Your task to perform on an android device: turn on location history Image 0: 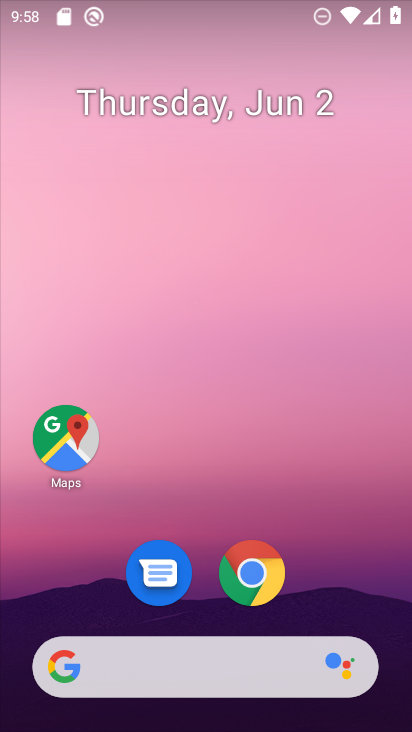
Step 0: drag from (333, 555) to (274, 202)
Your task to perform on an android device: turn on location history Image 1: 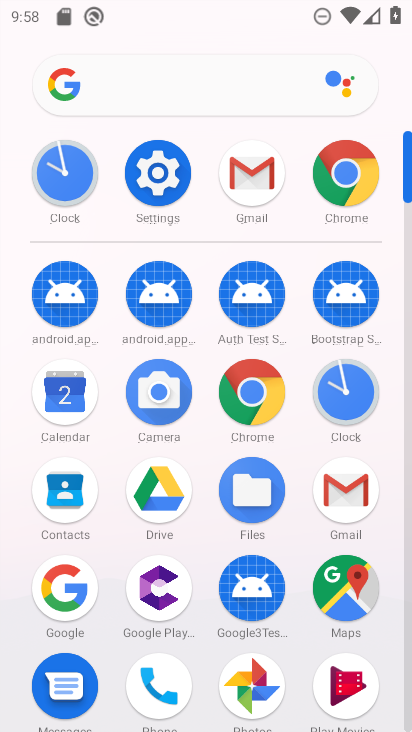
Step 1: click (158, 159)
Your task to perform on an android device: turn on location history Image 2: 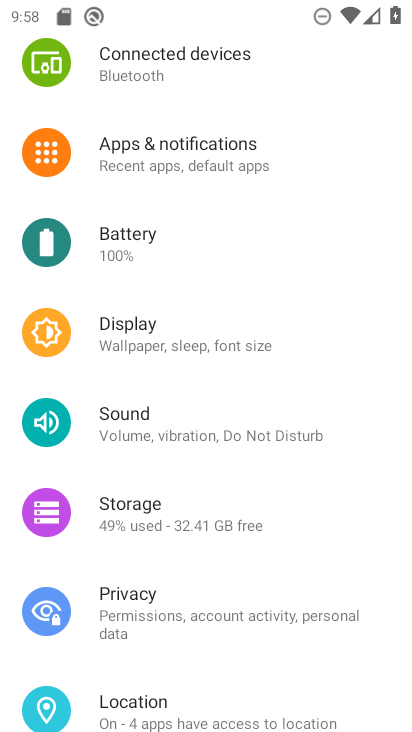
Step 2: drag from (180, 196) to (195, 565)
Your task to perform on an android device: turn on location history Image 3: 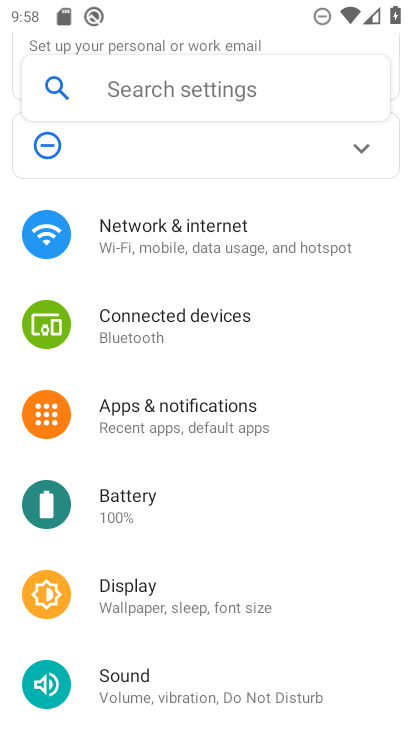
Step 3: drag from (194, 521) to (222, 166)
Your task to perform on an android device: turn on location history Image 4: 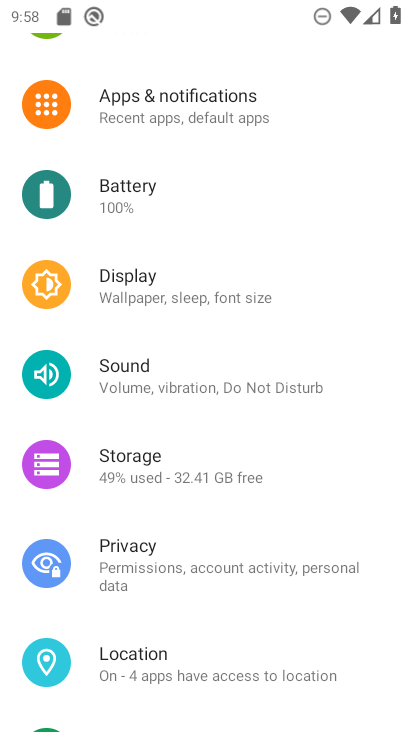
Step 4: click (129, 670)
Your task to perform on an android device: turn on location history Image 5: 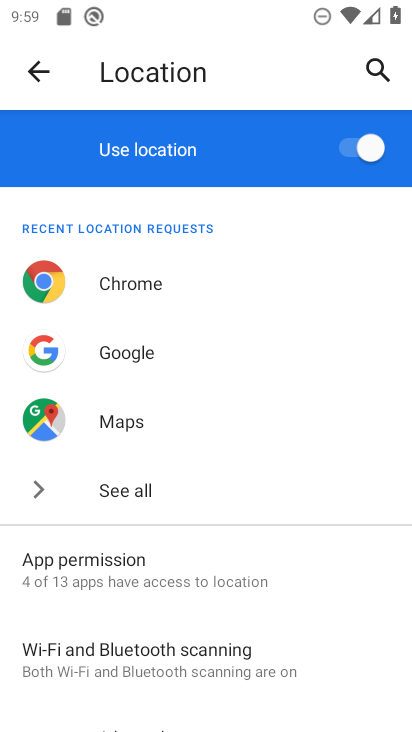
Step 5: drag from (253, 582) to (239, 201)
Your task to perform on an android device: turn on location history Image 6: 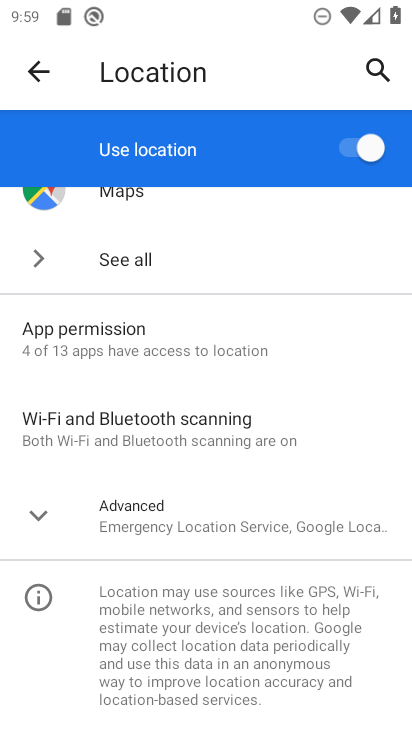
Step 6: click (139, 511)
Your task to perform on an android device: turn on location history Image 7: 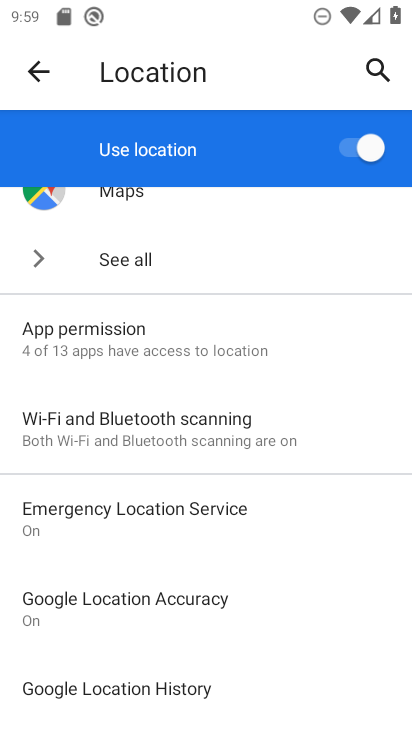
Step 7: click (183, 688)
Your task to perform on an android device: turn on location history Image 8: 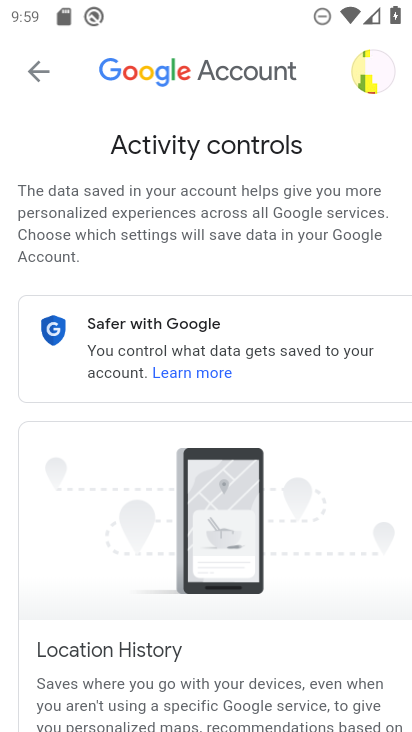
Step 8: drag from (199, 571) to (254, 163)
Your task to perform on an android device: turn on location history Image 9: 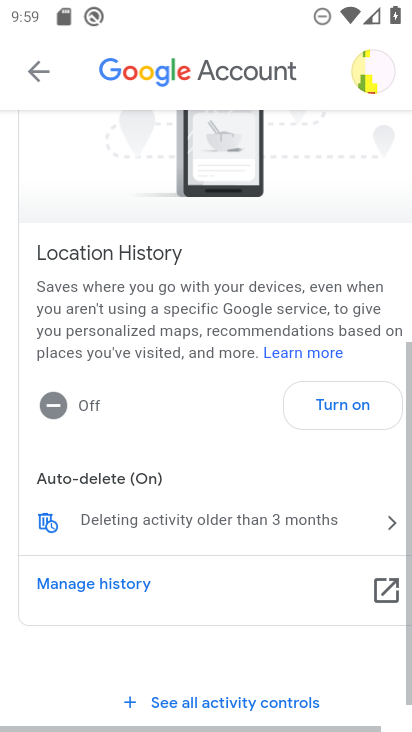
Step 9: click (254, 163)
Your task to perform on an android device: turn on location history Image 10: 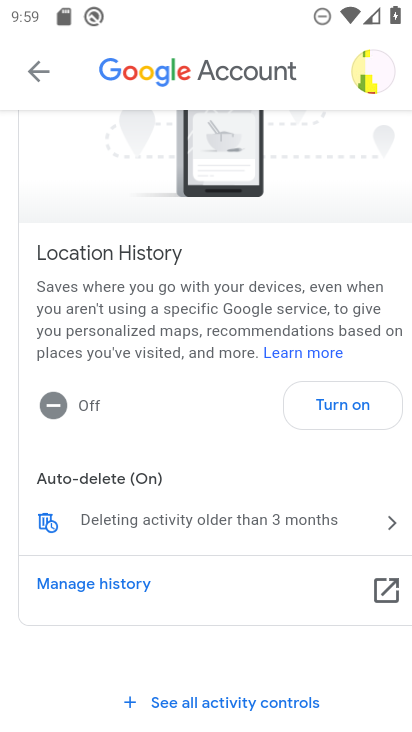
Step 10: click (328, 404)
Your task to perform on an android device: turn on location history Image 11: 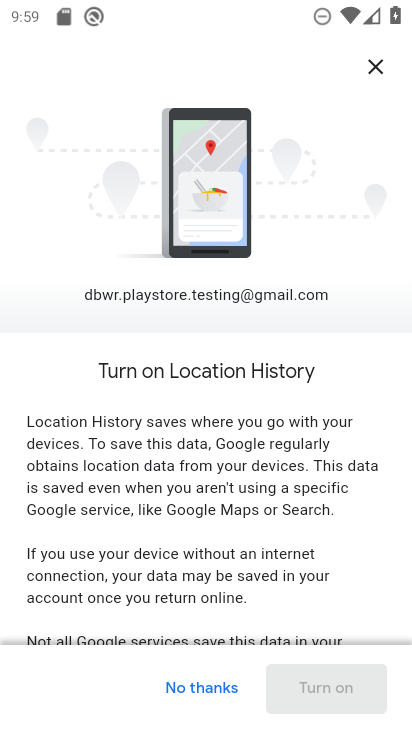
Step 11: drag from (223, 571) to (237, 230)
Your task to perform on an android device: turn on location history Image 12: 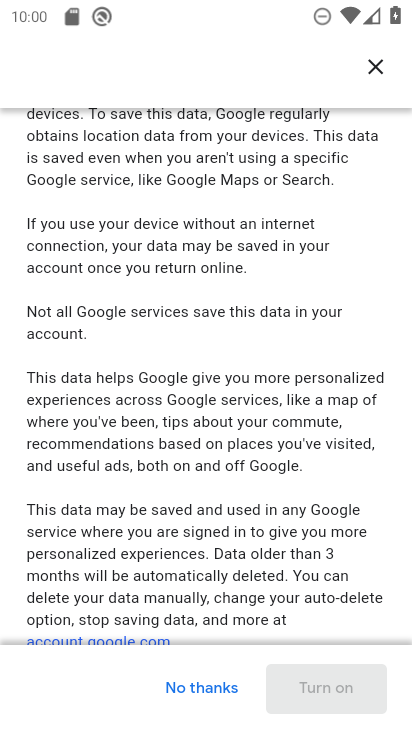
Step 12: drag from (269, 575) to (255, 221)
Your task to perform on an android device: turn on location history Image 13: 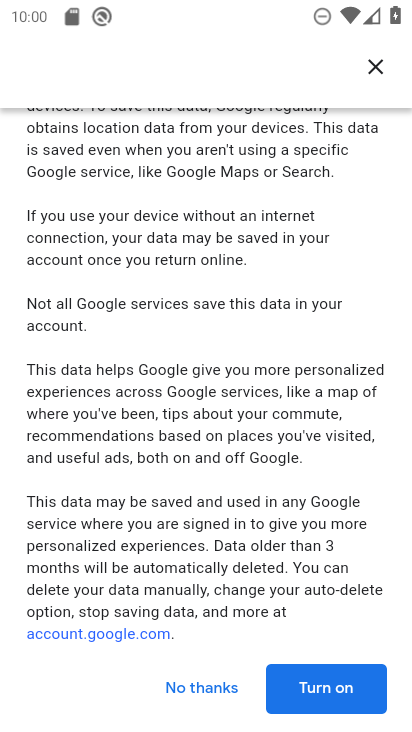
Step 13: click (325, 670)
Your task to perform on an android device: turn on location history Image 14: 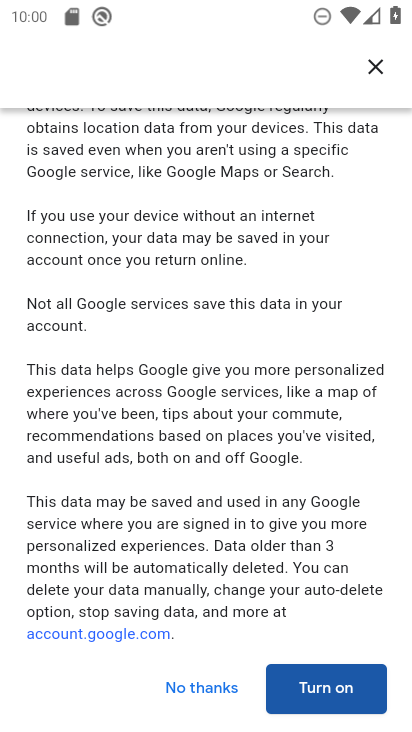
Step 14: click (330, 690)
Your task to perform on an android device: turn on location history Image 15: 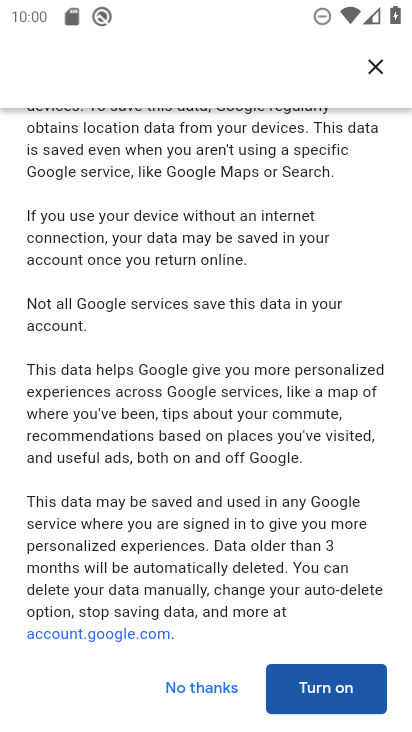
Step 15: click (330, 690)
Your task to perform on an android device: turn on location history Image 16: 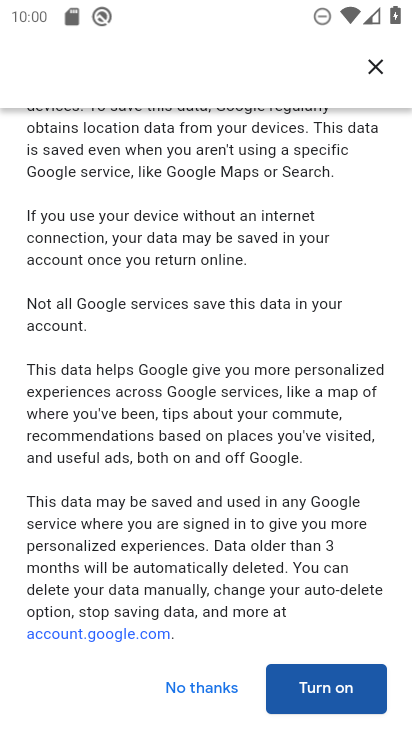
Step 16: click (330, 690)
Your task to perform on an android device: turn on location history Image 17: 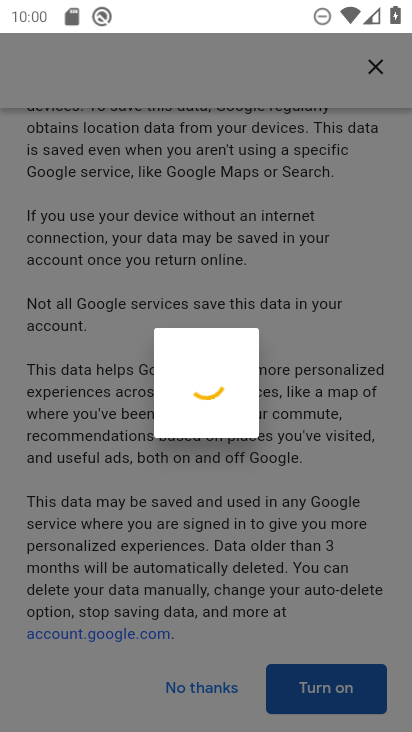
Step 17: click (330, 690)
Your task to perform on an android device: turn on location history Image 18: 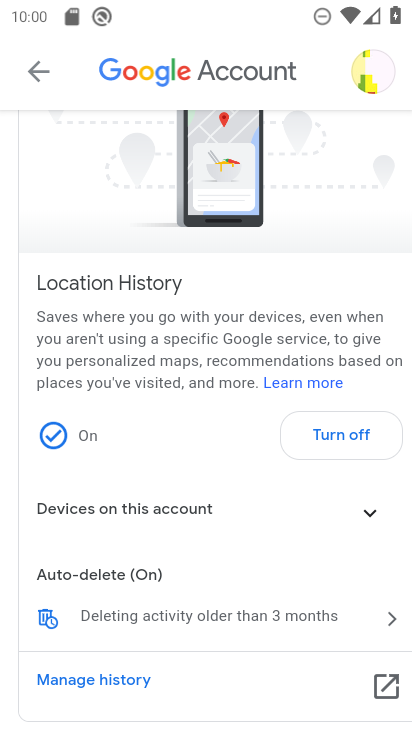
Step 18: task complete